Your task to perform on an android device: turn notification dots on Image 0: 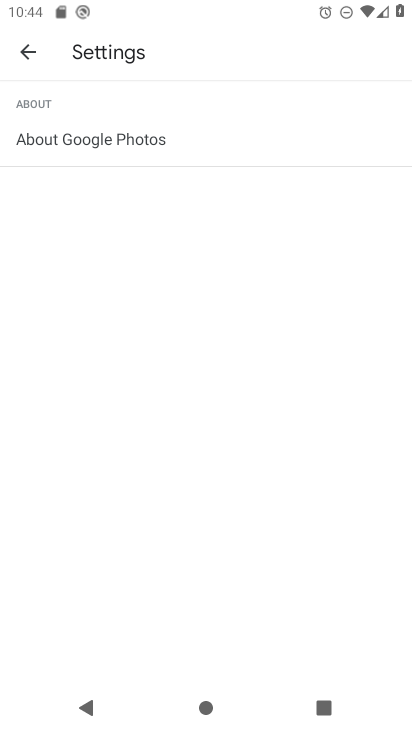
Step 0: press home button
Your task to perform on an android device: turn notification dots on Image 1: 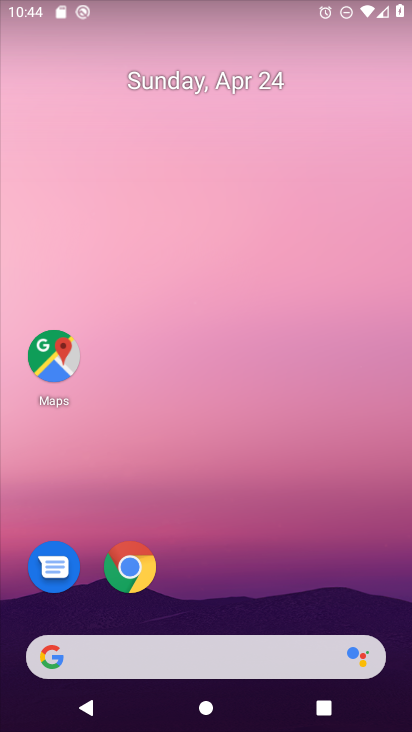
Step 1: drag from (230, 581) to (224, 143)
Your task to perform on an android device: turn notification dots on Image 2: 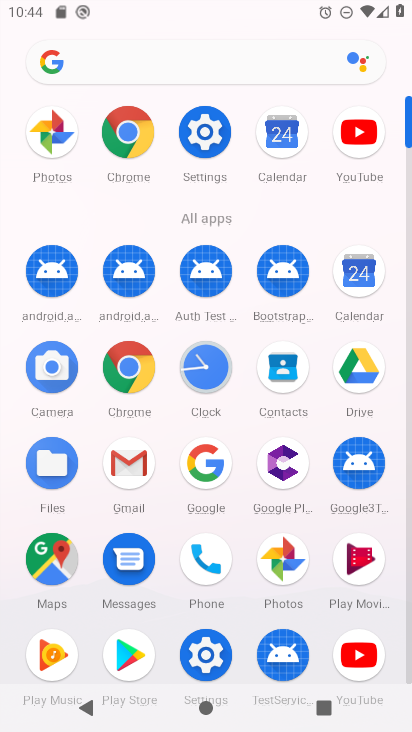
Step 2: click (207, 119)
Your task to perform on an android device: turn notification dots on Image 3: 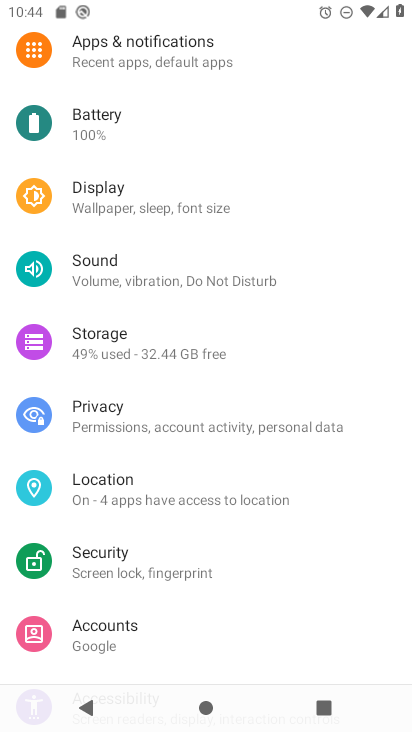
Step 3: click (151, 59)
Your task to perform on an android device: turn notification dots on Image 4: 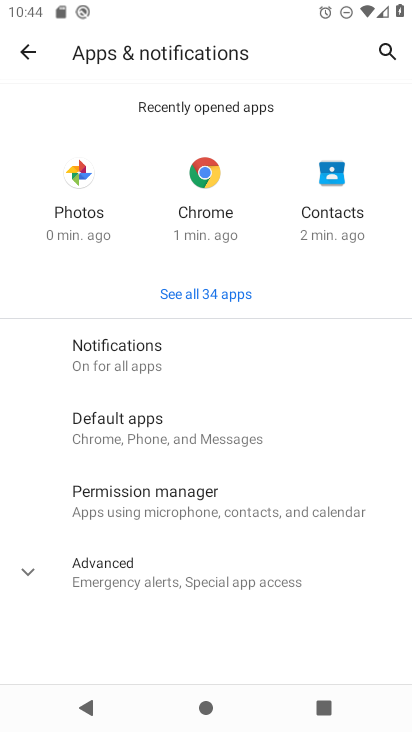
Step 4: click (180, 353)
Your task to perform on an android device: turn notification dots on Image 5: 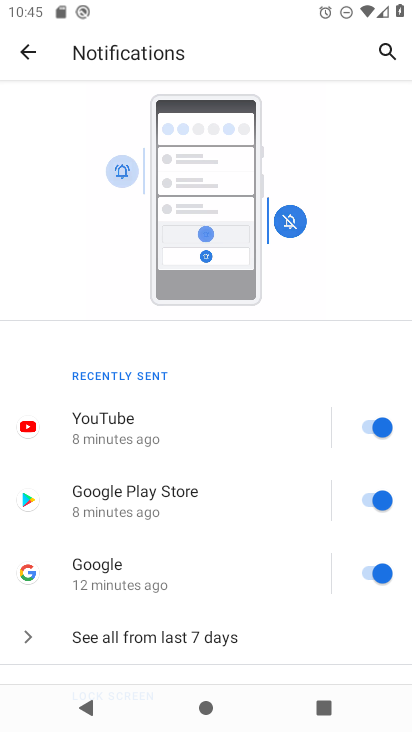
Step 5: drag from (184, 611) to (243, 329)
Your task to perform on an android device: turn notification dots on Image 6: 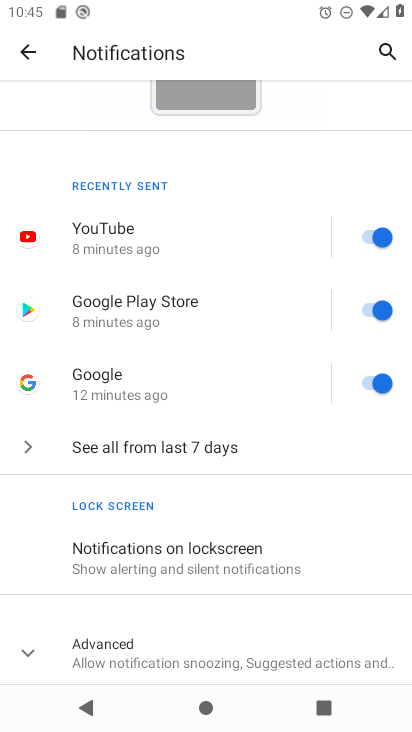
Step 6: drag from (183, 615) to (208, 365)
Your task to perform on an android device: turn notification dots on Image 7: 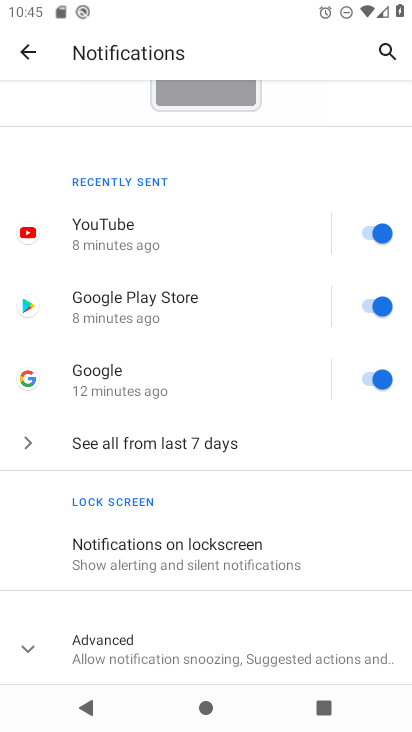
Step 7: drag from (154, 546) to (158, 449)
Your task to perform on an android device: turn notification dots on Image 8: 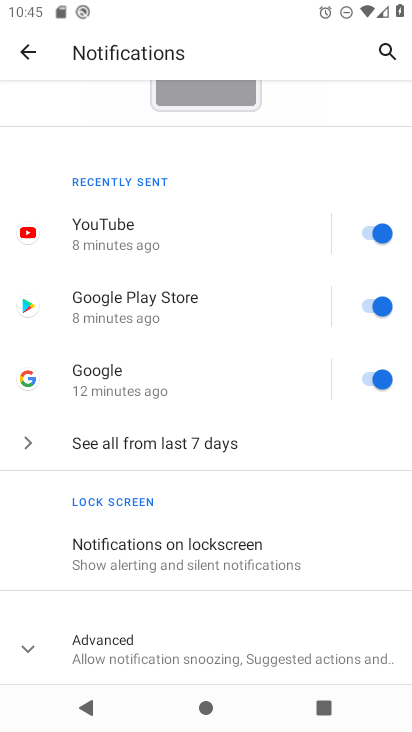
Step 8: click (27, 648)
Your task to perform on an android device: turn notification dots on Image 9: 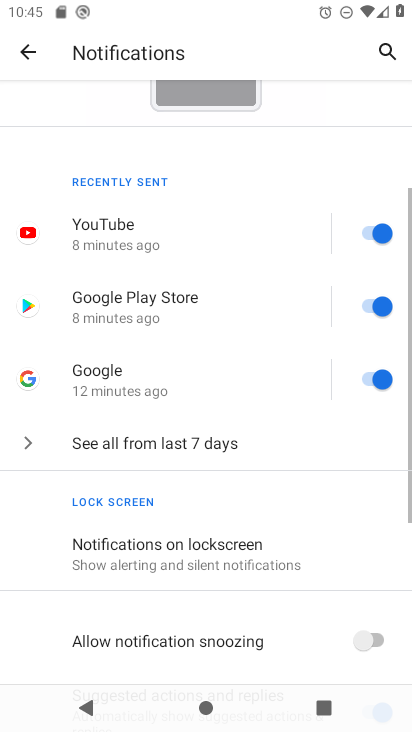
Step 9: task complete